Your task to perform on an android device: open device folders in google photos Image 0: 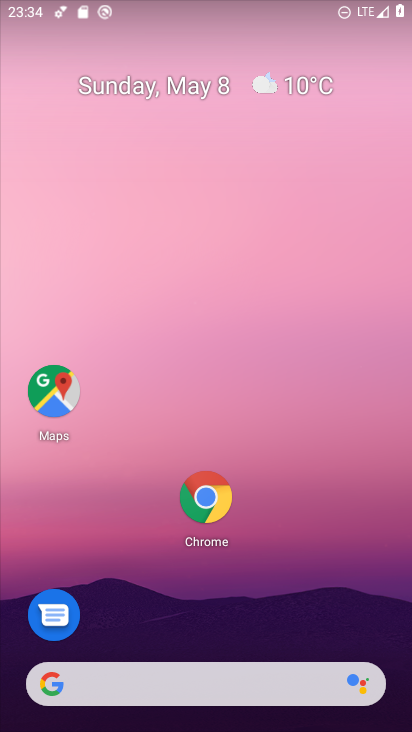
Step 0: drag from (311, 581) to (345, 102)
Your task to perform on an android device: open device folders in google photos Image 1: 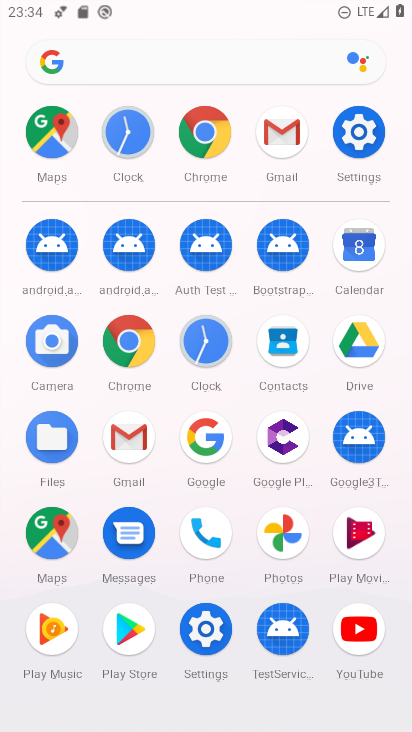
Step 1: click (286, 516)
Your task to perform on an android device: open device folders in google photos Image 2: 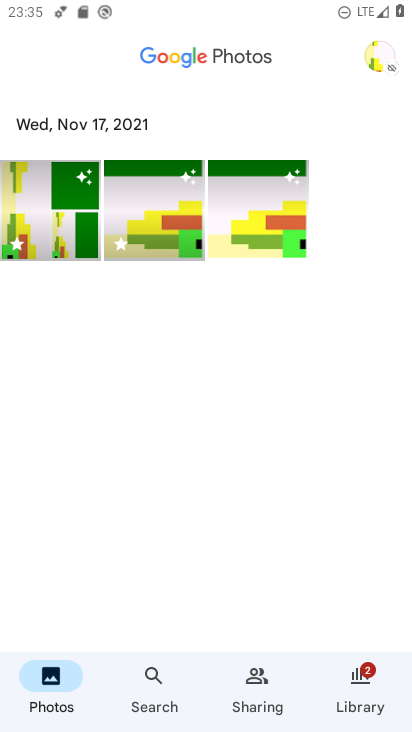
Step 2: click (379, 51)
Your task to perform on an android device: open device folders in google photos Image 3: 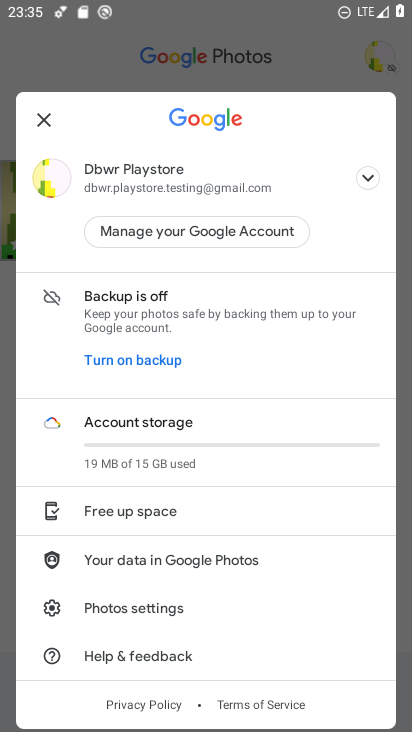
Step 3: click (175, 610)
Your task to perform on an android device: open device folders in google photos Image 4: 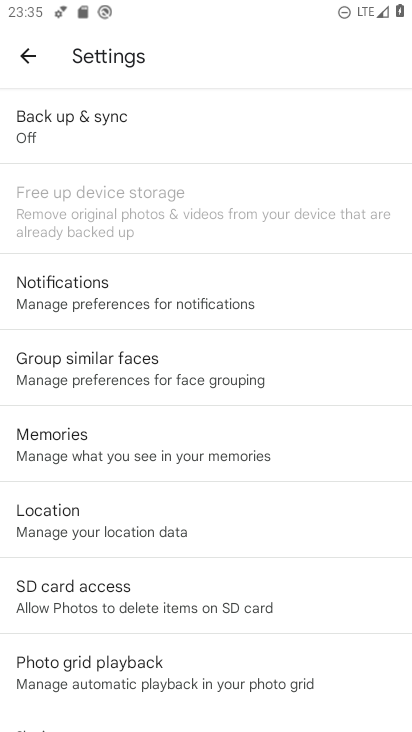
Step 4: click (24, 57)
Your task to perform on an android device: open device folders in google photos Image 5: 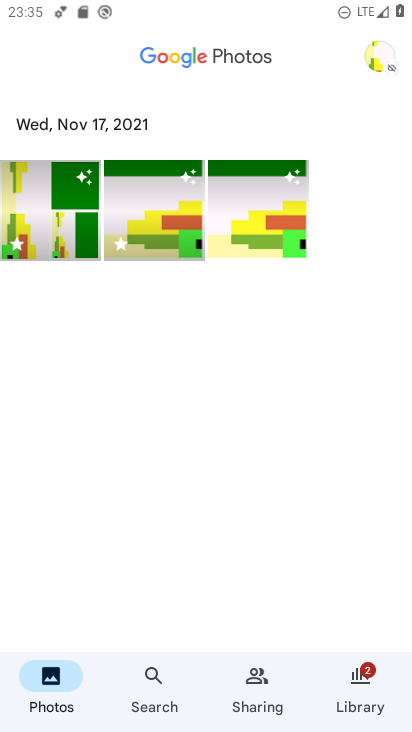
Step 5: task complete